Your task to perform on an android device: turn pop-ups on in chrome Image 0: 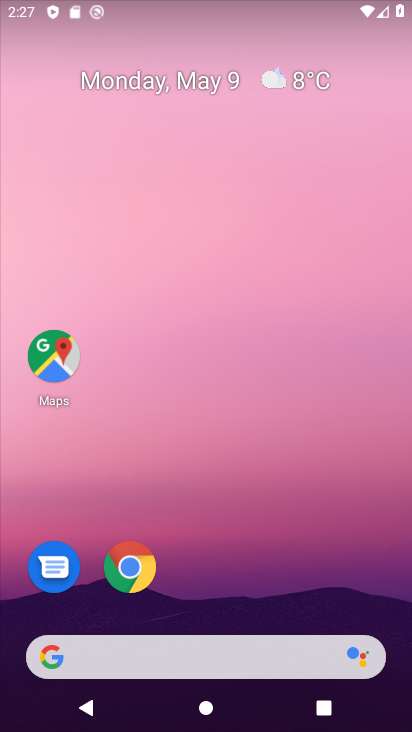
Step 0: drag from (316, 317) to (170, 6)
Your task to perform on an android device: turn pop-ups on in chrome Image 1: 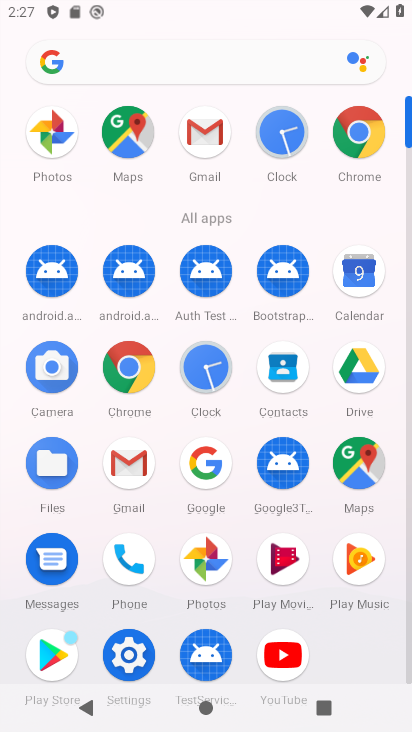
Step 1: drag from (0, 554) to (49, 283)
Your task to perform on an android device: turn pop-ups on in chrome Image 2: 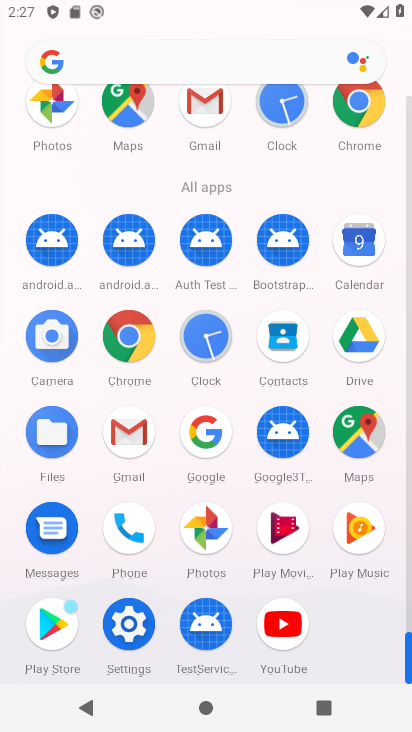
Step 2: click (128, 332)
Your task to perform on an android device: turn pop-ups on in chrome Image 3: 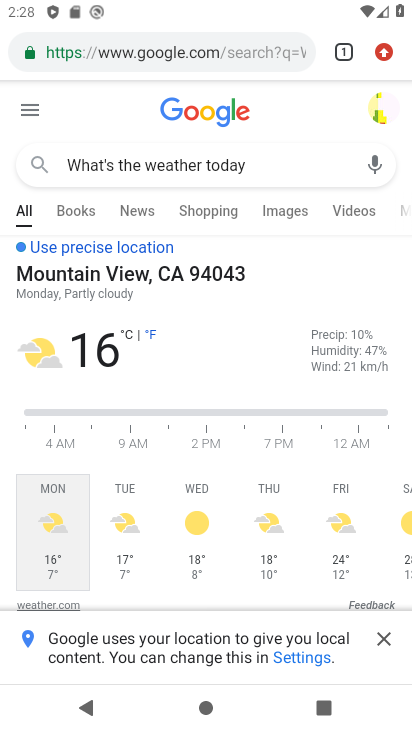
Step 3: drag from (384, 53) to (190, 622)
Your task to perform on an android device: turn pop-ups on in chrome Image 4: 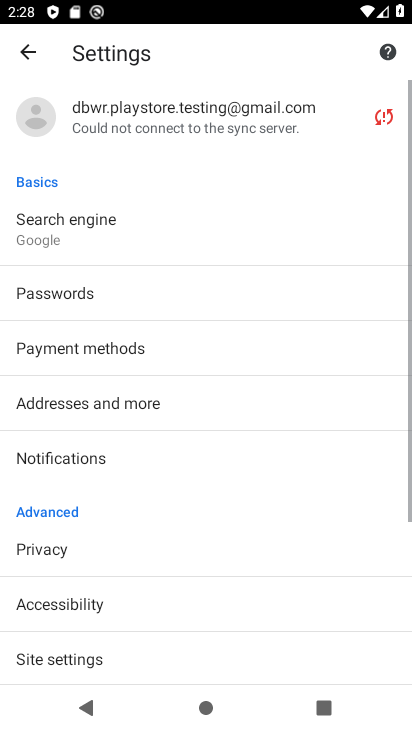
Step 4: drag from (210, 563) to (226, 144)
Your task to perform on an android device: turn pop-ups on in chrome Image 5: 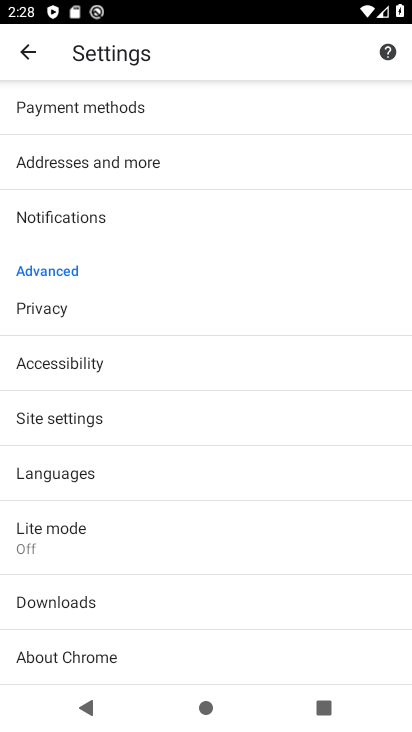
Step 5: click (127, 412)
Your task to perform on an android device: turn pop-ups on in chrome Image 6: 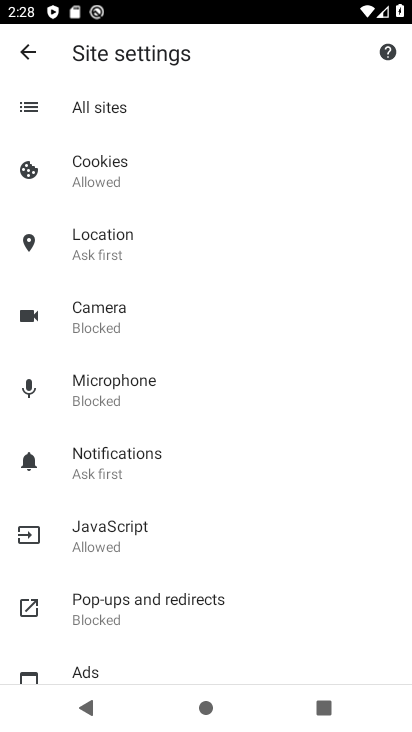
Step 6: drag from (255, 638) to (298, 214)
Your task to perform on an android device: turn pop-ups on in chrome Image 7: 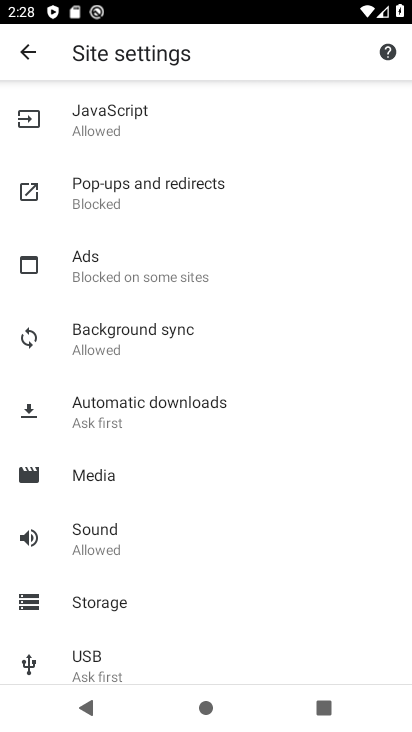
Step 7: click (155, 499)
Your task to perform on an android device: turn pop-ups on in chrome Image 8: 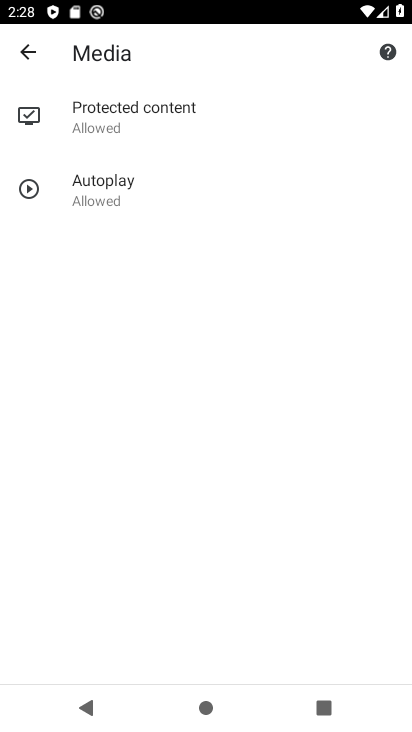
Step 8: click (31, 61)
Your task to perform on an android device: turn pop-ups on in chrome Image 9: 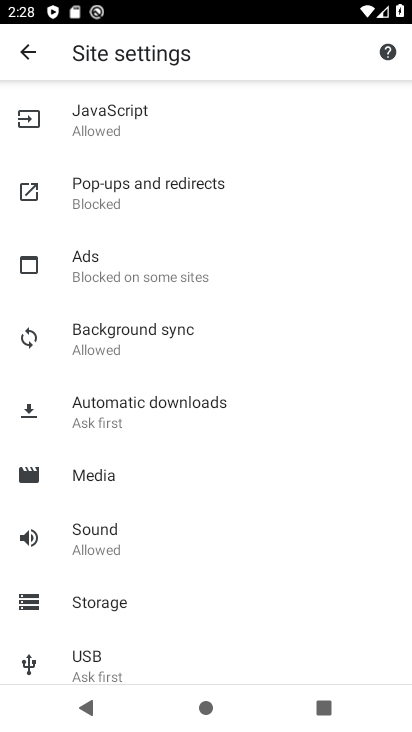
Step 9: click (165, 188)
Your task to perform on an android device: turn pop-ups on in chrome Image 10: 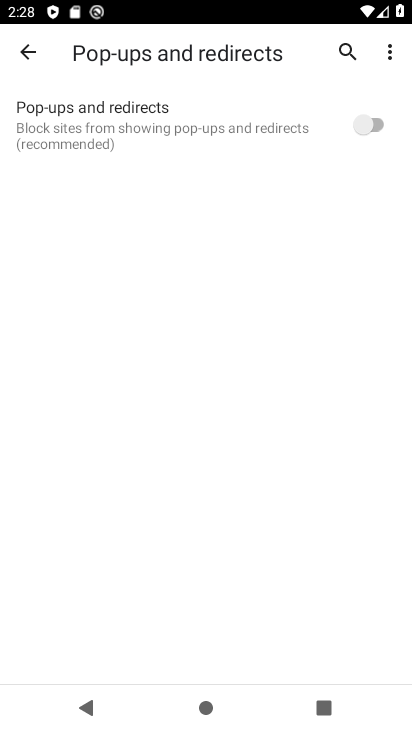
Step 10: click (376, 120)
Your task to perform on an android device: turn pop-ups on in chrome Image 11: 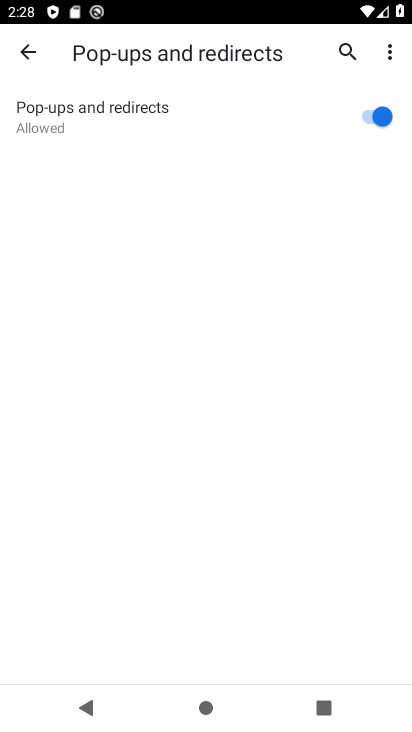
Step 11: task complete